Your task to perform on an android device: Check the news Image 0: 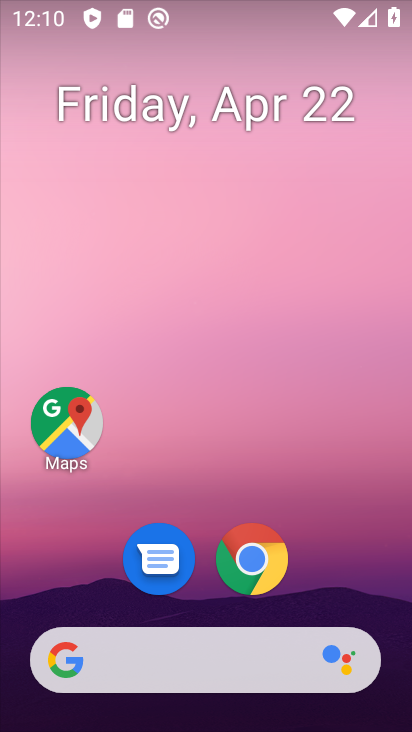
Step 0: drag from (0, 247) to (399, 390)
Your task to perform on an android device: Check the news Image 1: 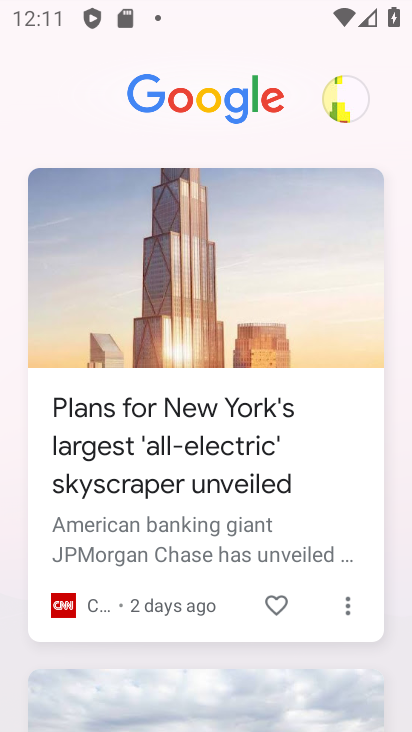
Step 1: task complete